Your task to perform on an android device: Open Wikipedia Image 0: 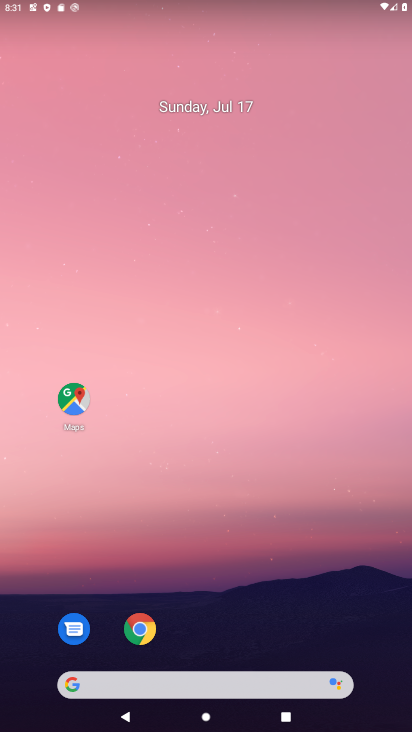
Step 0: click (136, 631)
Your task to perform on an android device: Open Wikipedia Image 1: 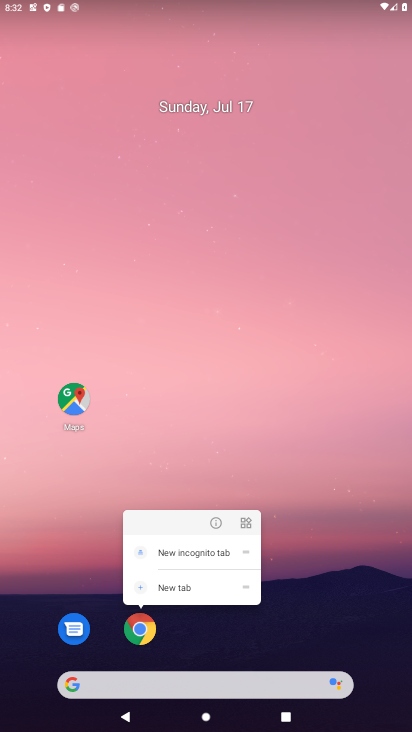
Step 1: click (138, 628)
Your task to perform on an android device: Open Wikipedia Image 2: 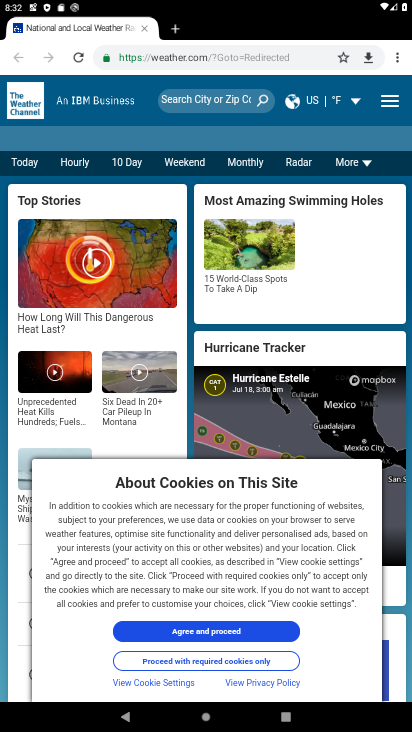
Step 2: click (399, 60)
Your task to perform on an android device: Open Wikipedia Image 3: 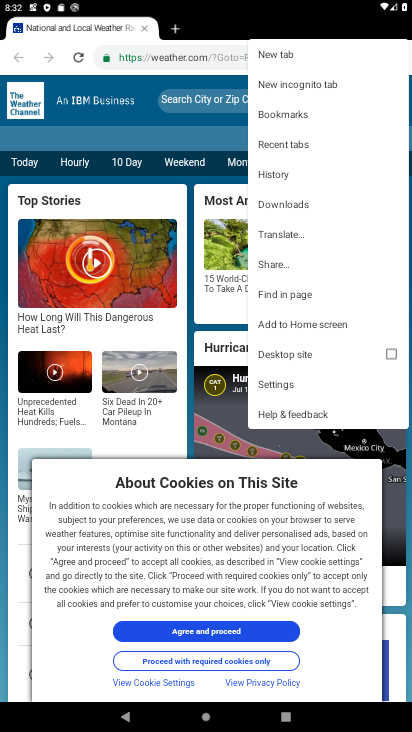
Step 3: click (292, 60)
Your task to perform on an android device: Open Wikipedia Image 4: 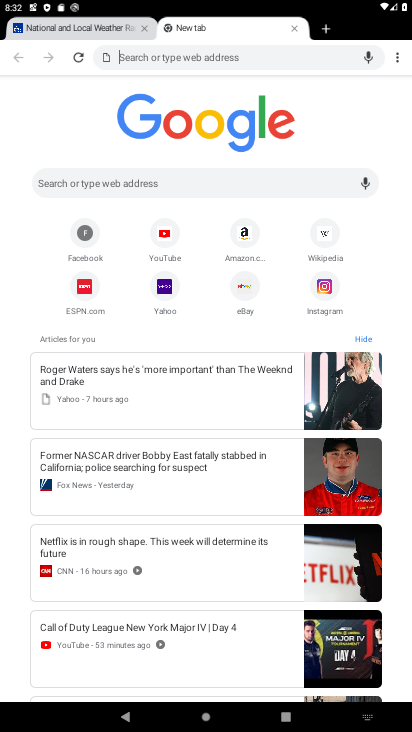
Step 4: click (322, 242)
Your task to perform on an android device: Open Wikipedia Image 5: 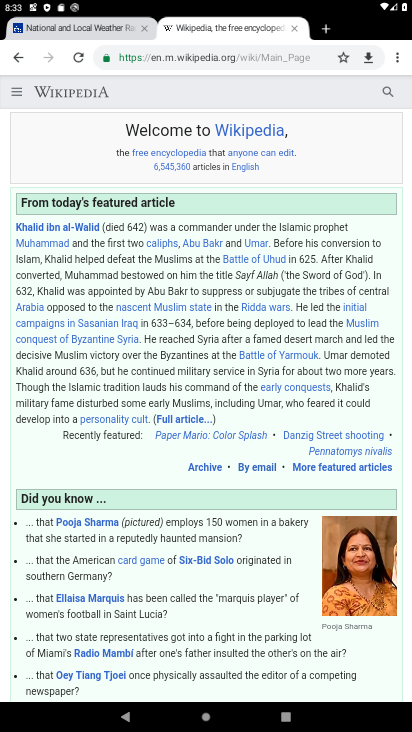
Step 5: task complete